Your task to perform on an android device: turn smart compose on in the gmail app Image 0: 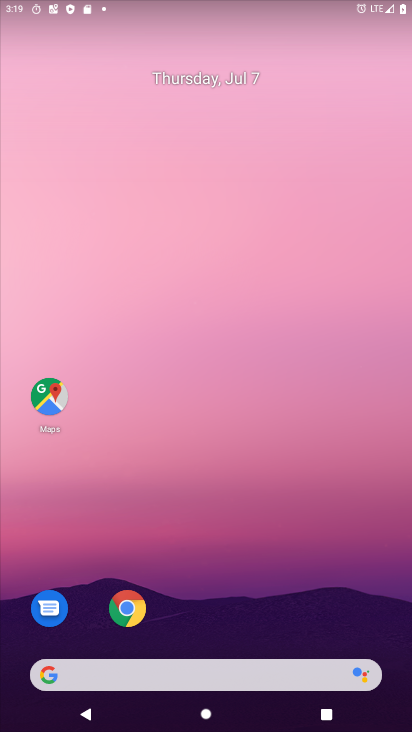
Step 0: drag from (243, 671) to (194, 58)
Your task to perform on an android device: turn smart compose on in the gmail app Image 1: 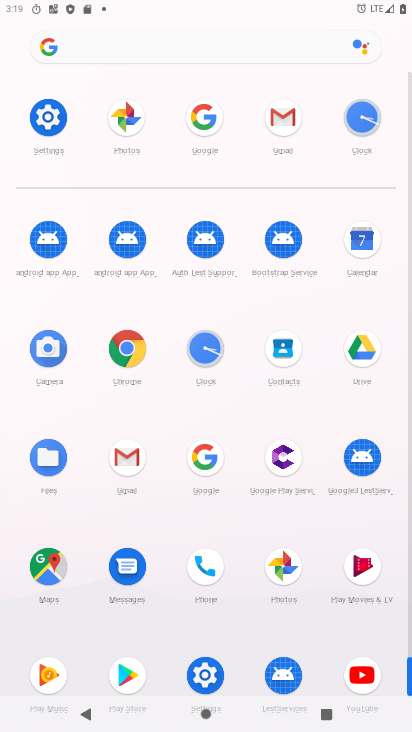
Step 1: click (123, 455)
Your task to perform on an android device: turn smart compose on in the gmail app Image 2: 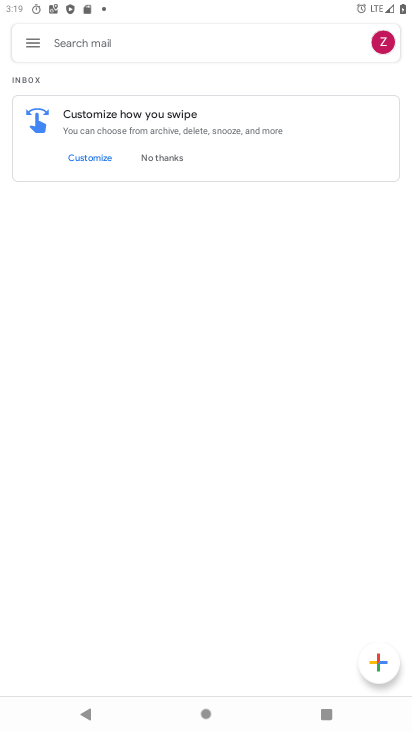
Step 2: click (29, 41)
Your task to perform on an android device: turn smart compose on in the gmail app Image 3: 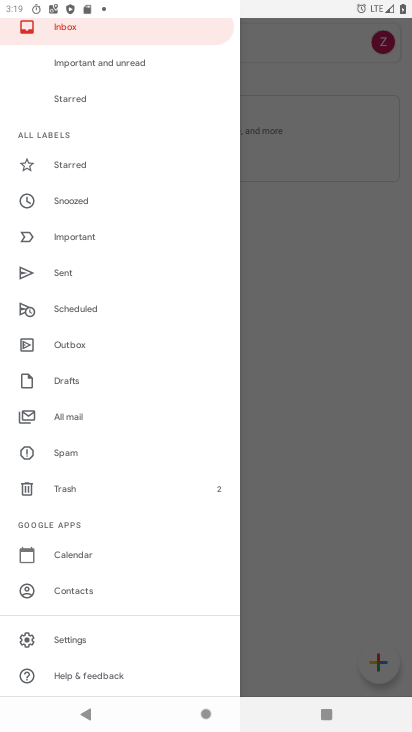
Step 3: click (66, 637)
Your task to perform on an android device: turn smart compose on in the gmail app Image 4: 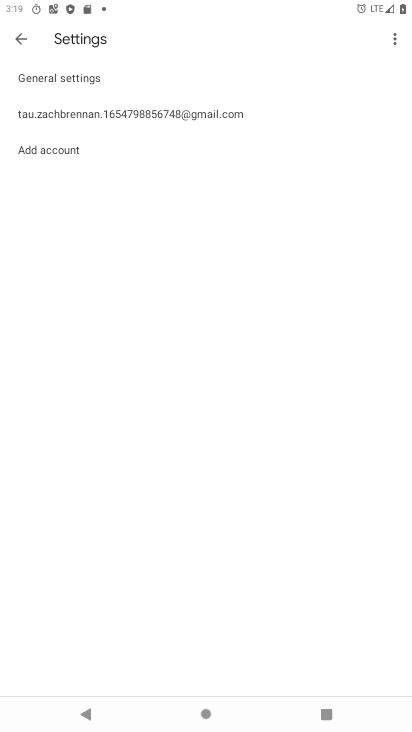
Step 4: click (101, 109)
Your task to perform on an android device: turn smart compose on in the gmail app Image 5: 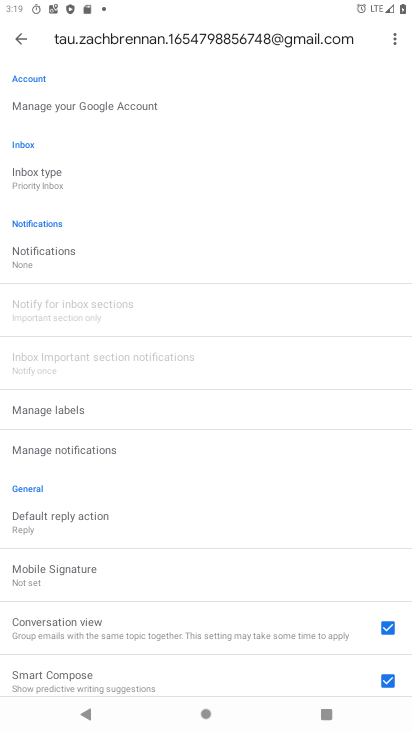
Step 5: task complete